Your task to perform on an android device: How do I get to the nearest Verizon Store? Image 0: 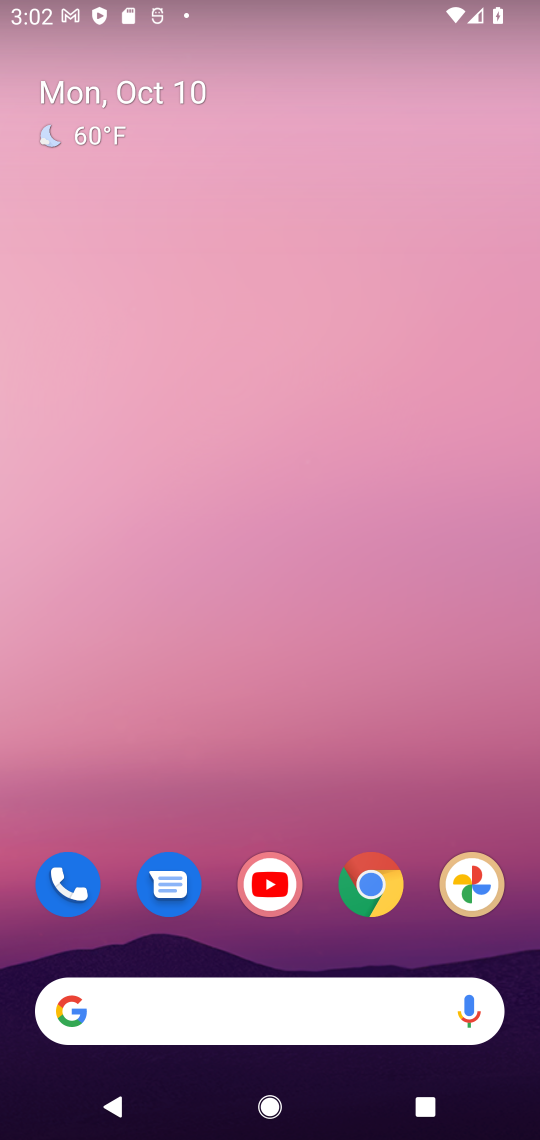
Step 0: click (379, 895)
Your task to perform on an android device: How do I get to the nearest Verizon Store? Image 1: 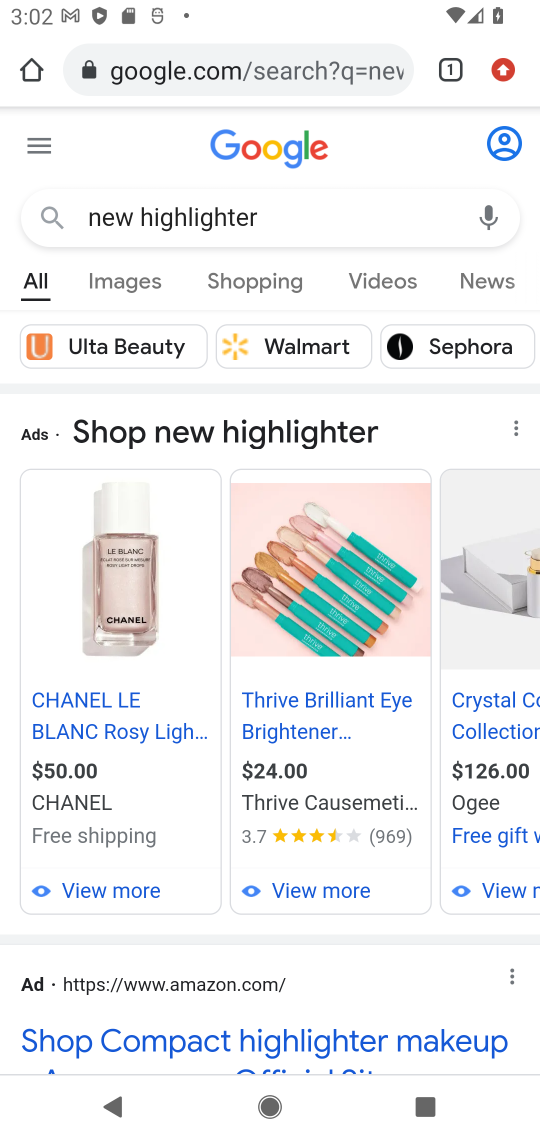
Step 1: click (294, 225)
Your task to perform on an android device: How do I get to the nearest Verizon Store? Image 2: 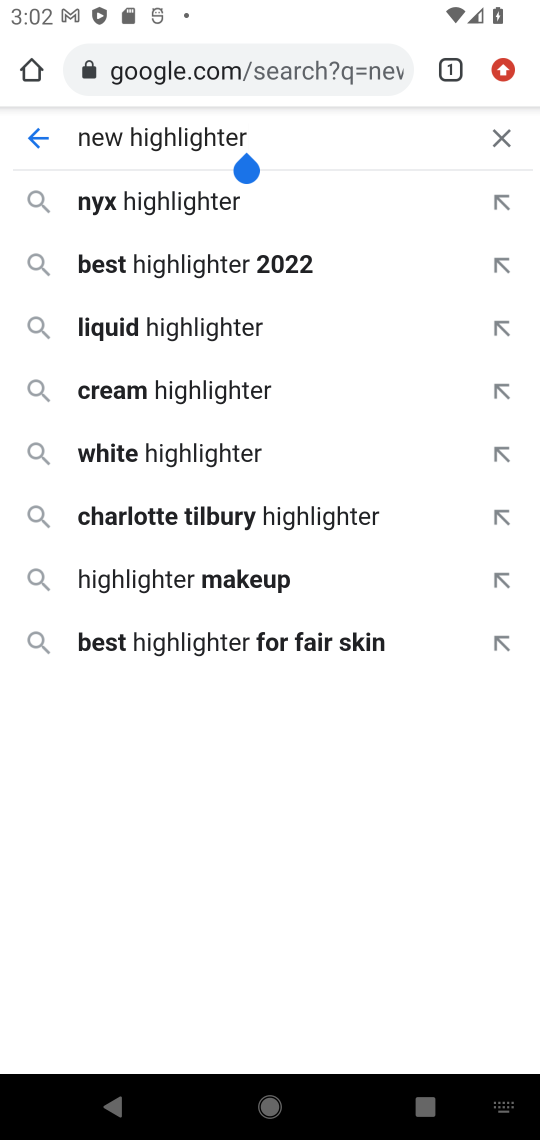
Step 2: click (494, 129)
Your task to perform on an android device: How do I get to the nearest Verizon Store? Image 3: 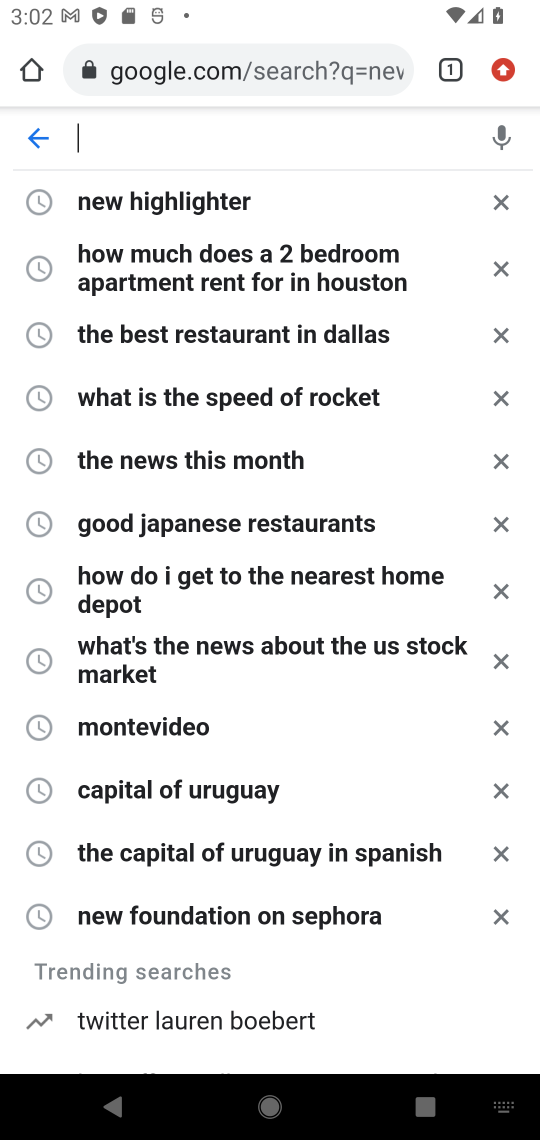
Step 3: type "How do I get to the nearest Verizon Store"
Your task to perform on an android device: How do I get to the nearest Verizon Store? Image 4: 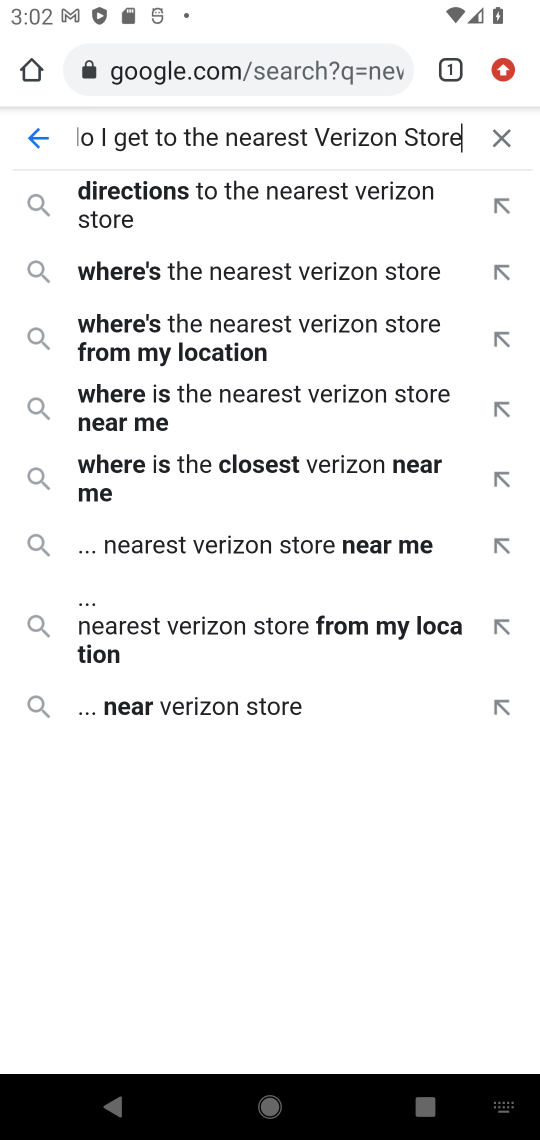
Step 4: click (236, 192)
Your task to perform on an android device: How do I get to the nearest Verizon Store? Image 5: 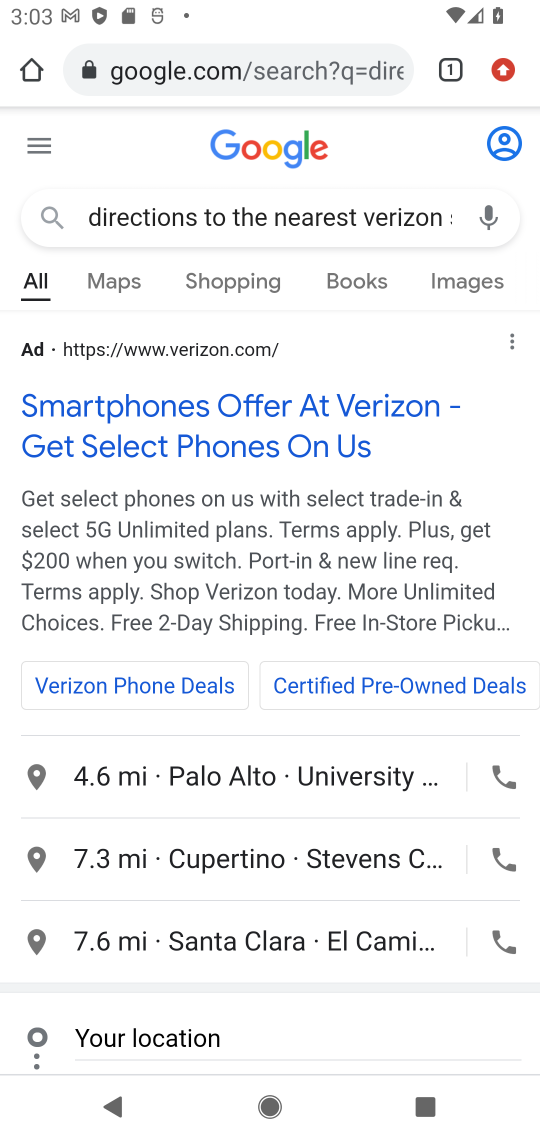
Step 5: task complete